Your task to perform on an android device: Do I have any events tomorrow? Image 0: 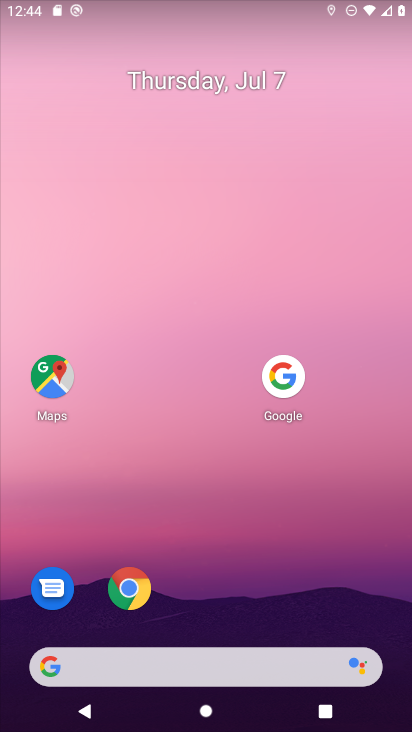
Step 0: drag from (193, 668) to (274, 95)
Your task to perform on an android device: Do I have any events tomorrow? Image 1: 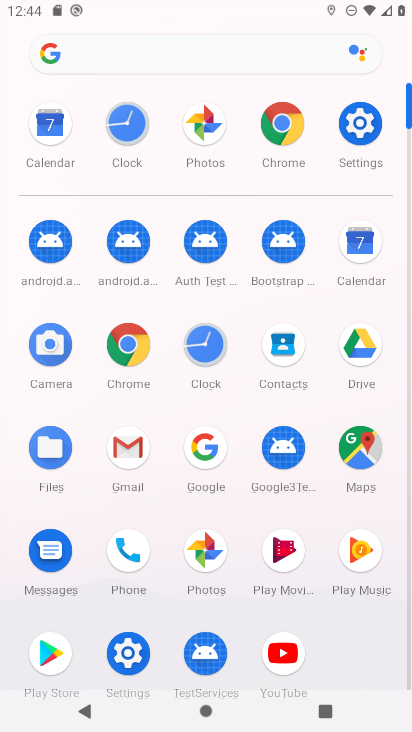
Step 1: click (370, 250)
Your task to perform on an android device: Do I have any events tomorrow? Image 2: 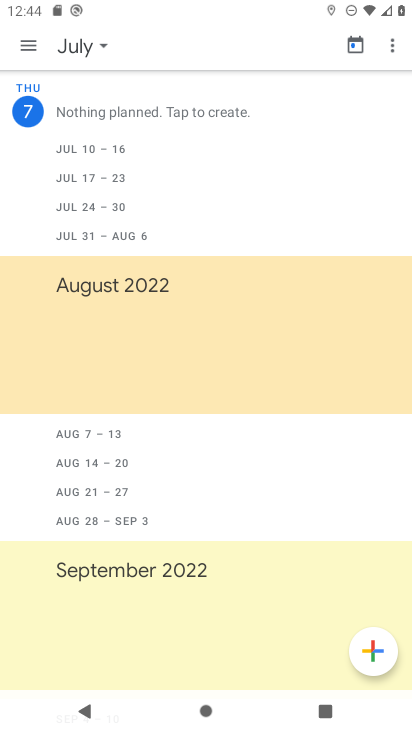
Step 2: click (59, 42)
Your task to perform on an android device: Do I have any events tomorrow? Image 3: 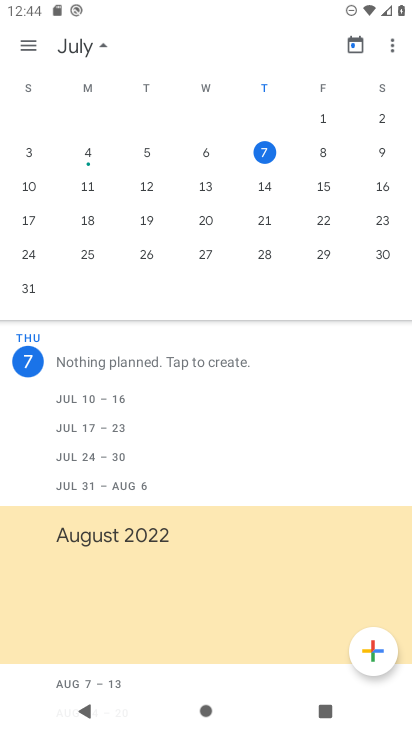
Step 3: click (323, 156)
Your task to perform on an android device: Do I have any events tomorrow? Image 4: 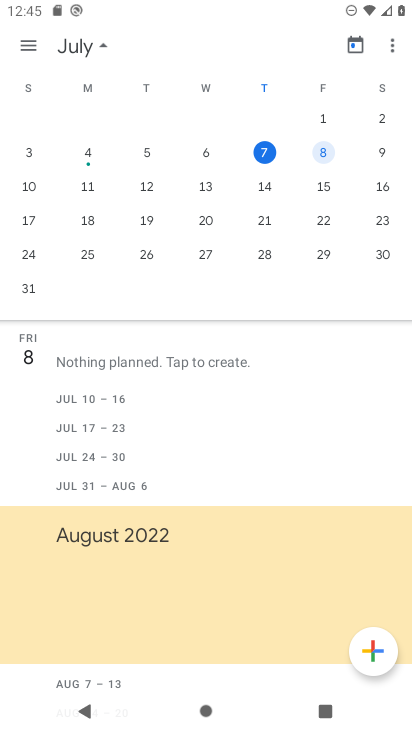
Step 4: click (35, 44)
Your task to perform on an android device: Do I have any events tomorrow? Image 5: 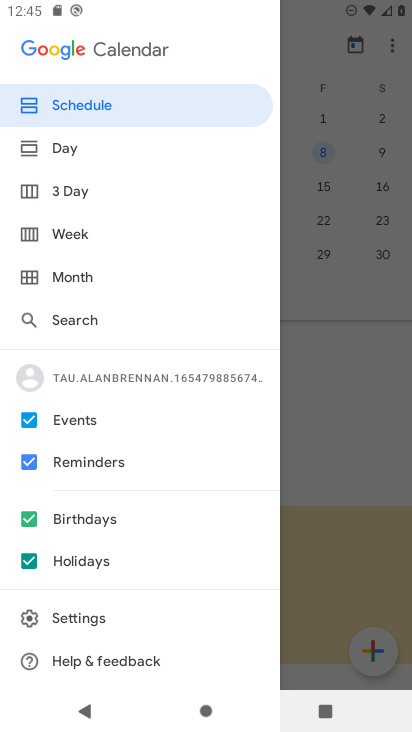
Step 5: click (94, 99)
Your task to perform on an android device: Do I have any events tomorrow? Image 6: 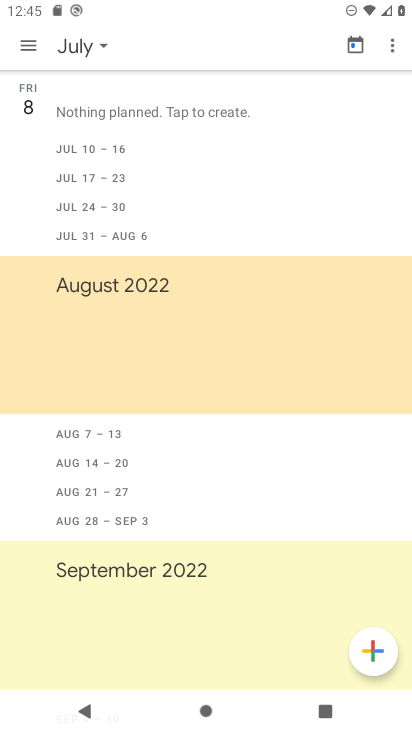
Step 6: task complete